Your task to perform on an android device: Go to display settings Image 0: 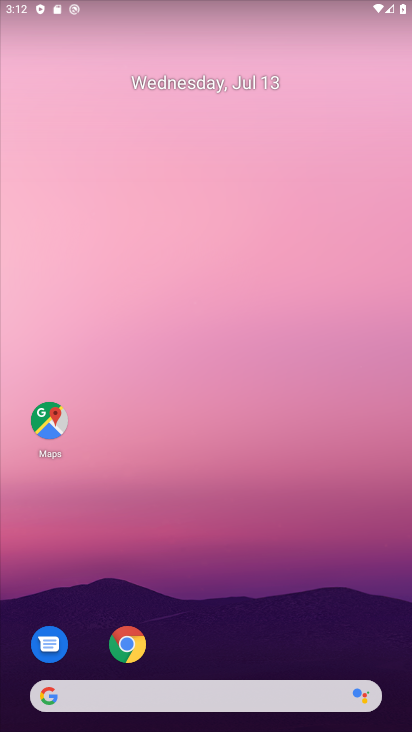
Step 0: drag from (189, 698) to (253, 115)
Your task to perform on an android device: Go to display settings Image 1: 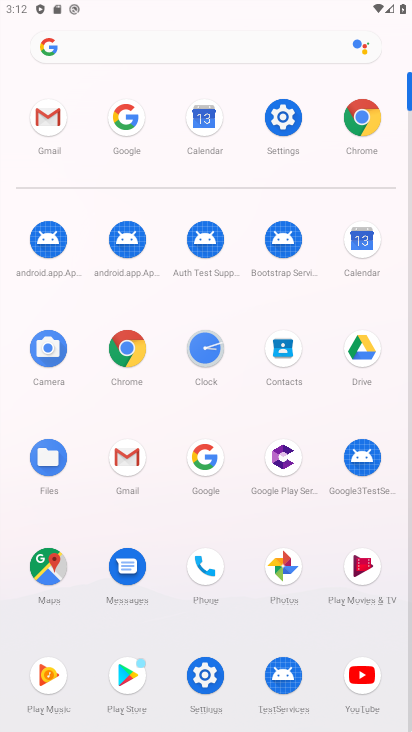
Step 1: click (206, 676)
Your task to perform on an android device: Go to display settings Image 2: 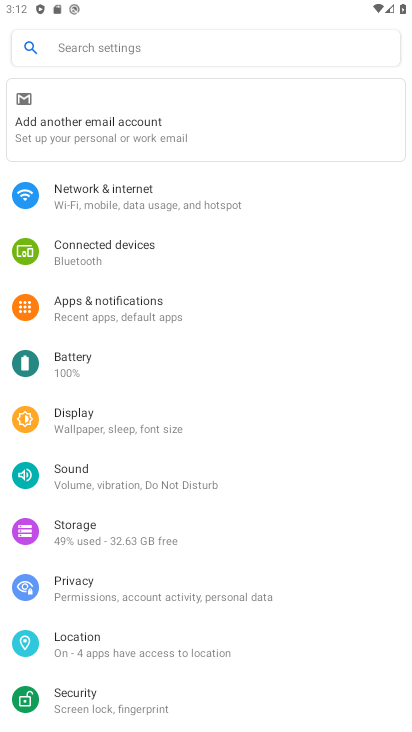
Step 2: click (98, 421)
Your task to perform on an android device: Go to display settings Image 3: 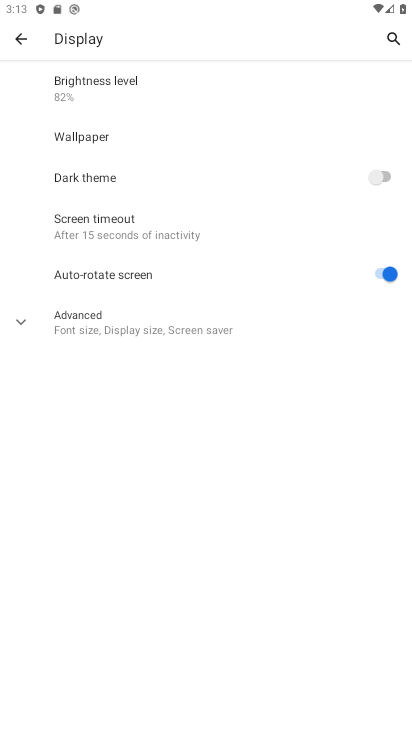
Step 3: task complete